Your task to perform on an android device: Open Google Maps Image 0: 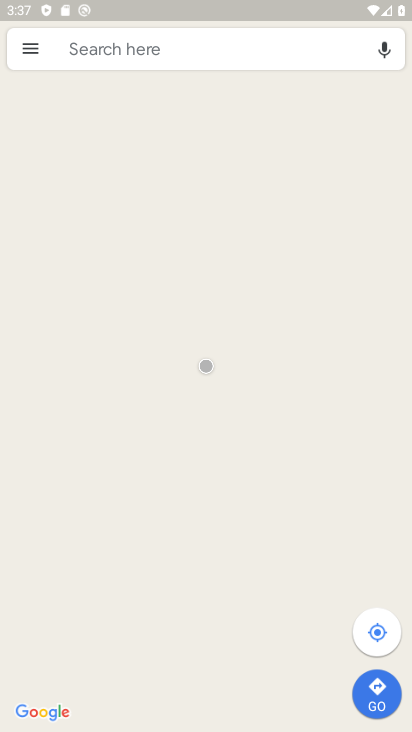
Step 0: press home button
Your task to perform on an android device: Open Google Maps Image 1: 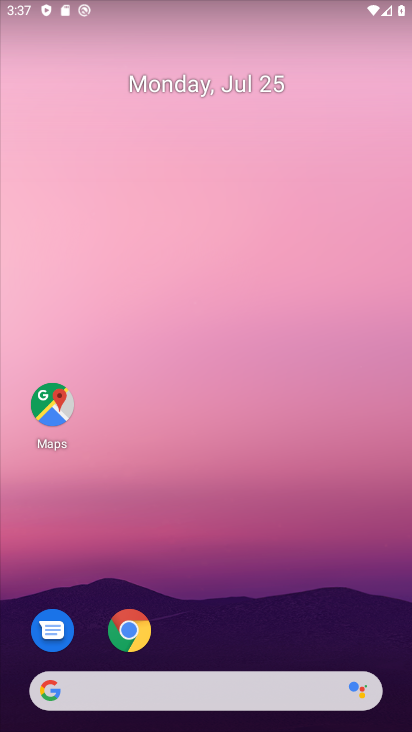
Step 1: drag from (244, 647) to (229, 168)
Your task to perform on an android device: Open Google Maps Image 2: 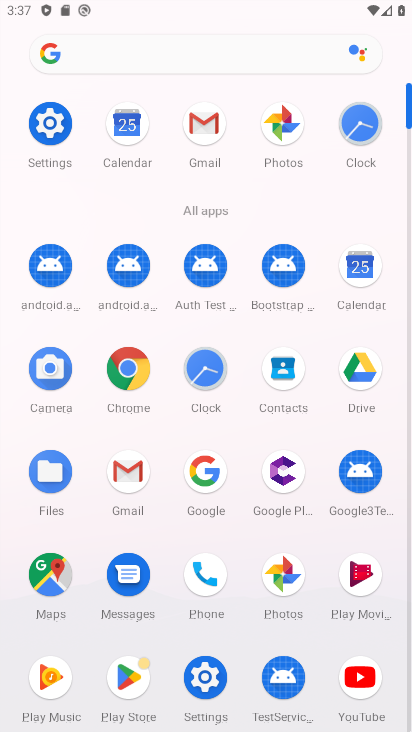
Step 2: click (52, 580)
Your task to perform on an android device: Open Google Maps Image 3: 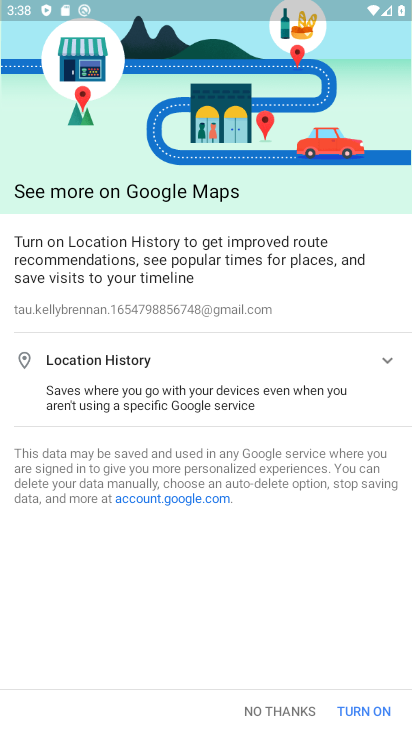
Step 3: click (275, 708)
Your task to perform on an android device: Open Google Maps Image 4: 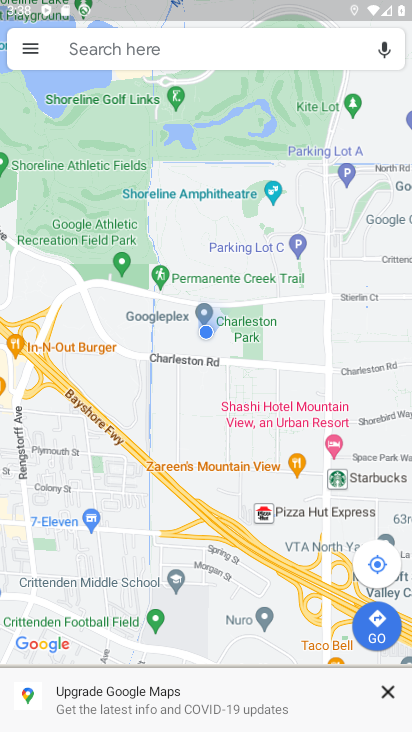
Step 4: task complete